Your task to perform on an android device: Add macbook pro 15 inch to the cart on amazon.com Image 0: 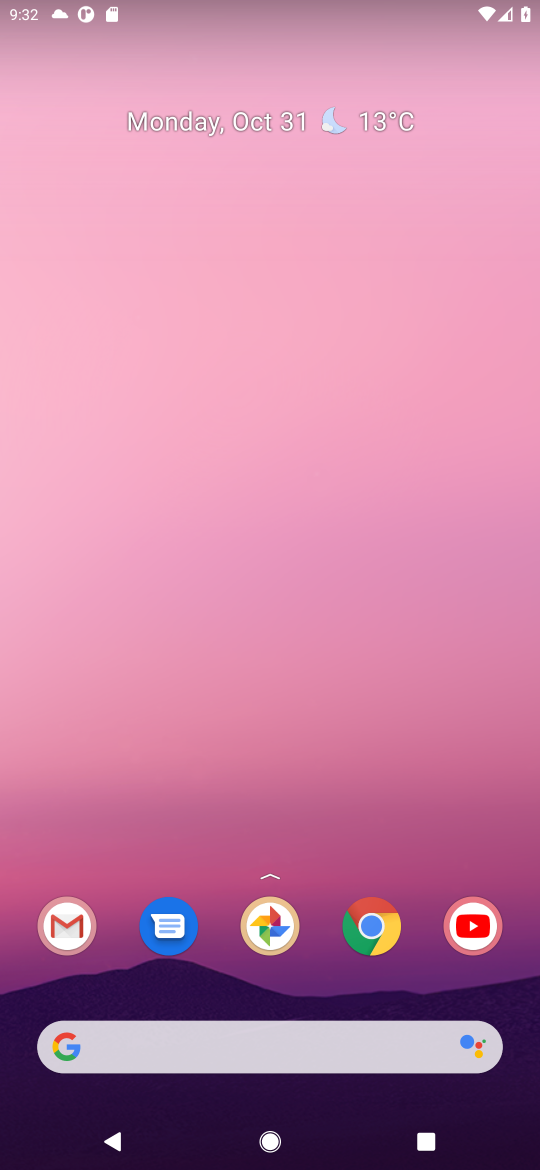
Step 0: click (376, 927)
Your task to perform on an android device: Add macbook pro 15 inch to the cart on amazon.com Image 1: 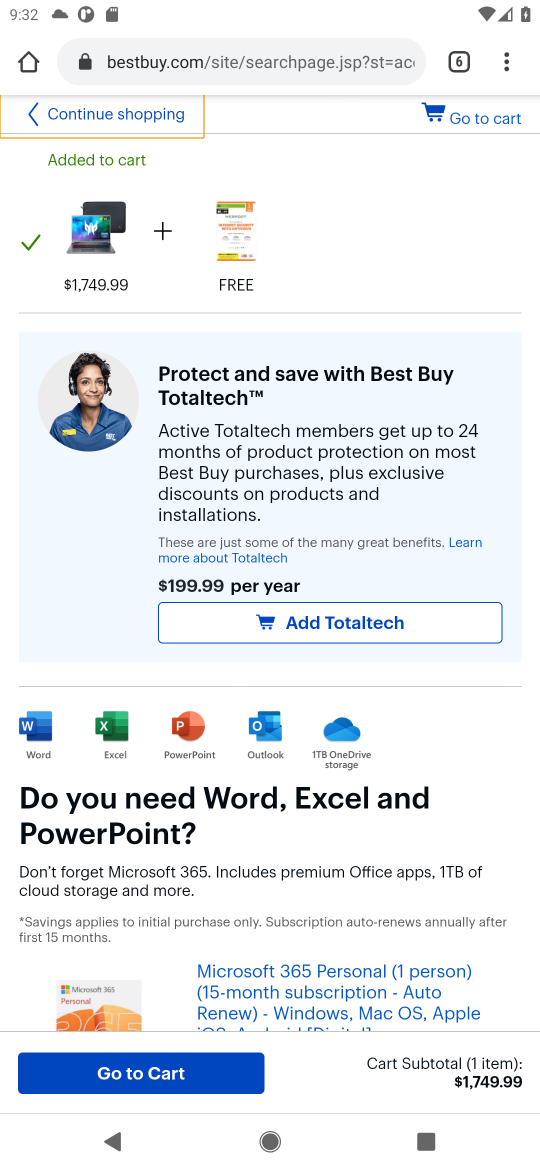
Step 1: click (460, 64)
Your task to perform on an android device: Add macbook pro 15 inch to the cart on amazon.com Image 2: 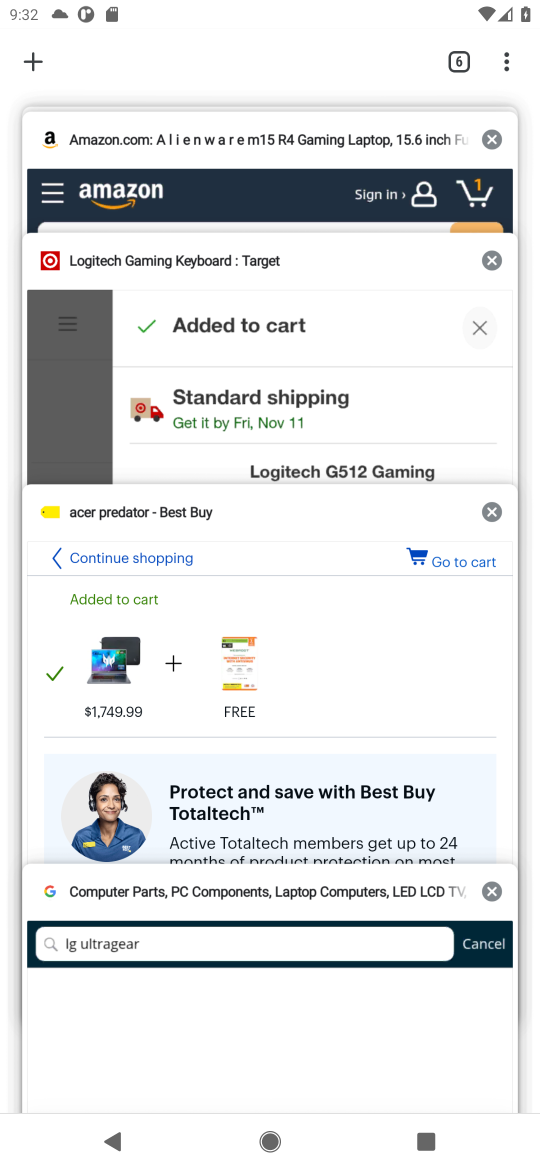
Step 2: click (261, 167)
Your task to perform on an android device: Add macbook pro 15 inch to the cart on amazon.com Image 3: 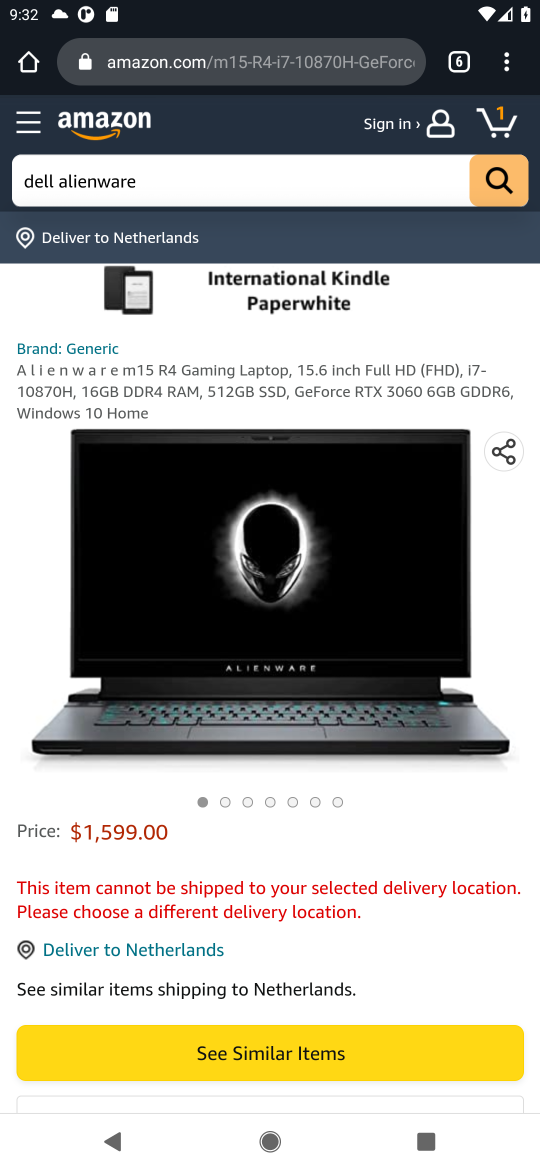
Step 3: click (332, 199)
Your task to perform on an android device: Add macbook pro 15 inch to the cart on amazon.com Image 4: 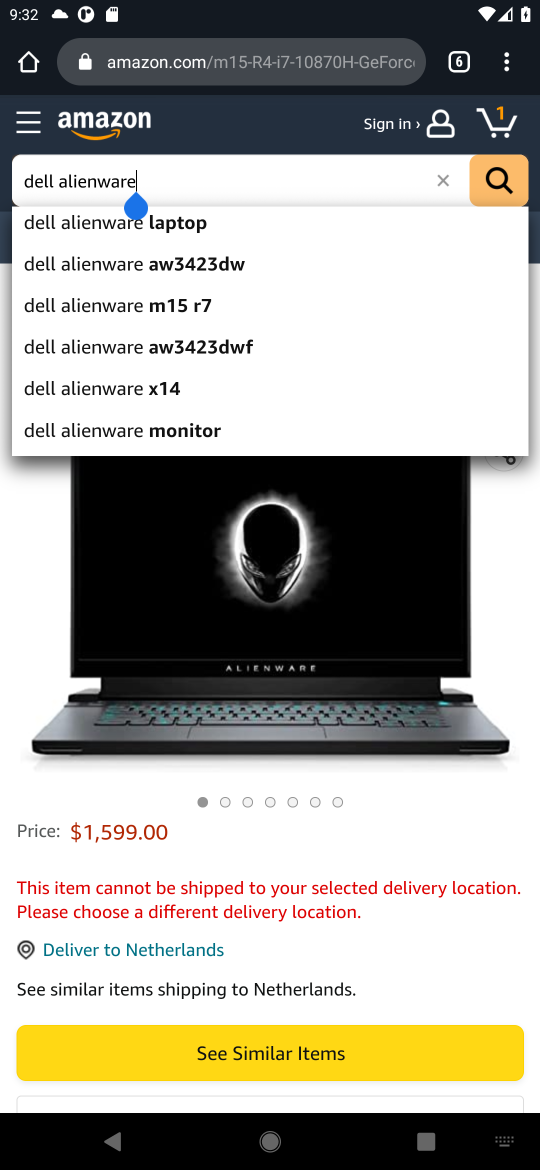
Step 4: click (438, 180)
Your task to perform on an android device: Add macbook pro 15 inch to the cart on amazon.com Image 5: 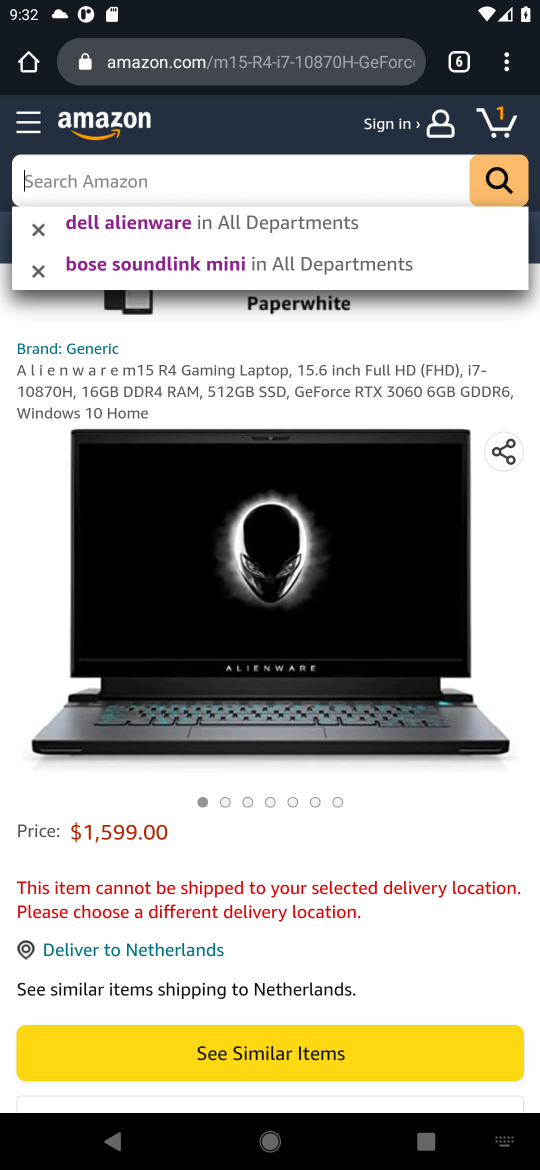
Step 5: type "macbook pro 15 inch"
Your task to perform on an android device: Add macbook pro 15 inch to the cart on amazon.com Image 6: 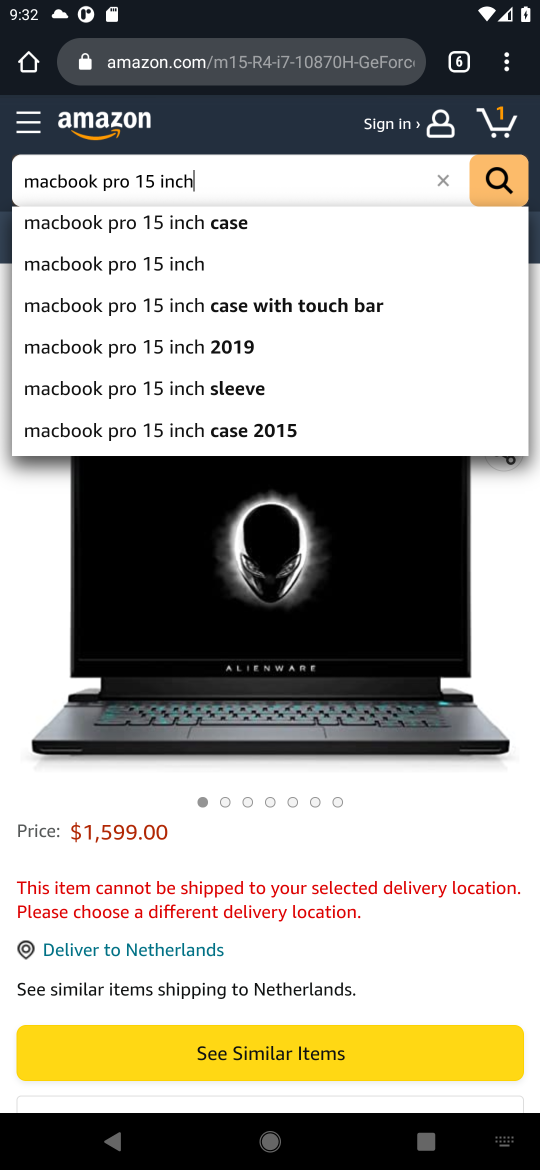
Step 6: click (234, 218)
Your task to perform on an android device: Add macbook pro 15 inch to the cart on amazon.com Image 7: 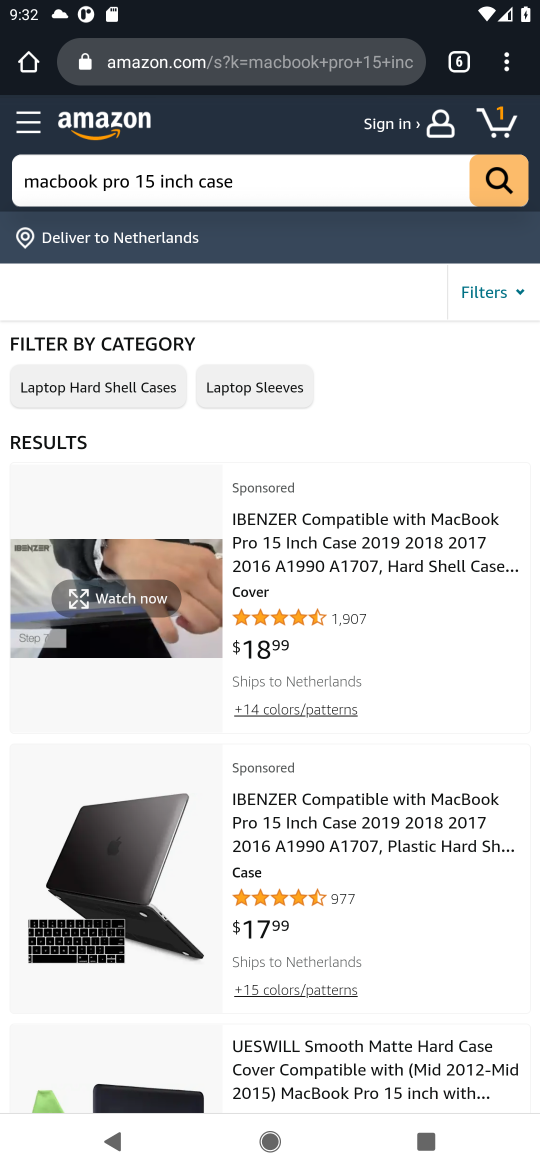
Step 7: drag from (374, 823) to (398, 479)
Your task to perform on an android device: Add macbook pro 15 inch to the cart on amazon.com Image 8: 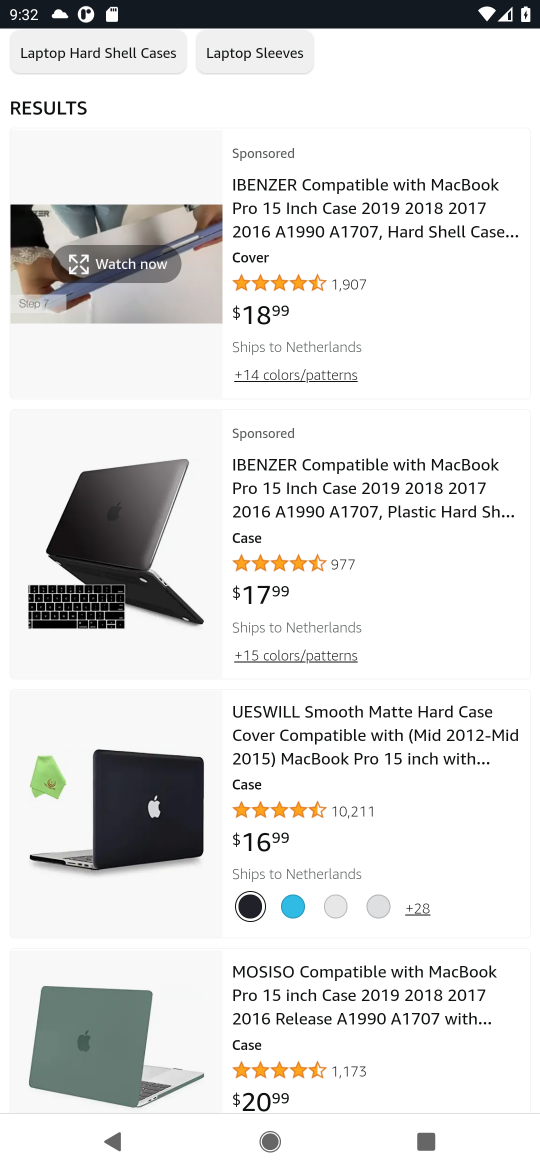
Step 8: drag from (390, 342) to (403, 1160)
Your task to perform on an android device: Add macbook pro 15 inch to the cart on amazon.com Image 9: 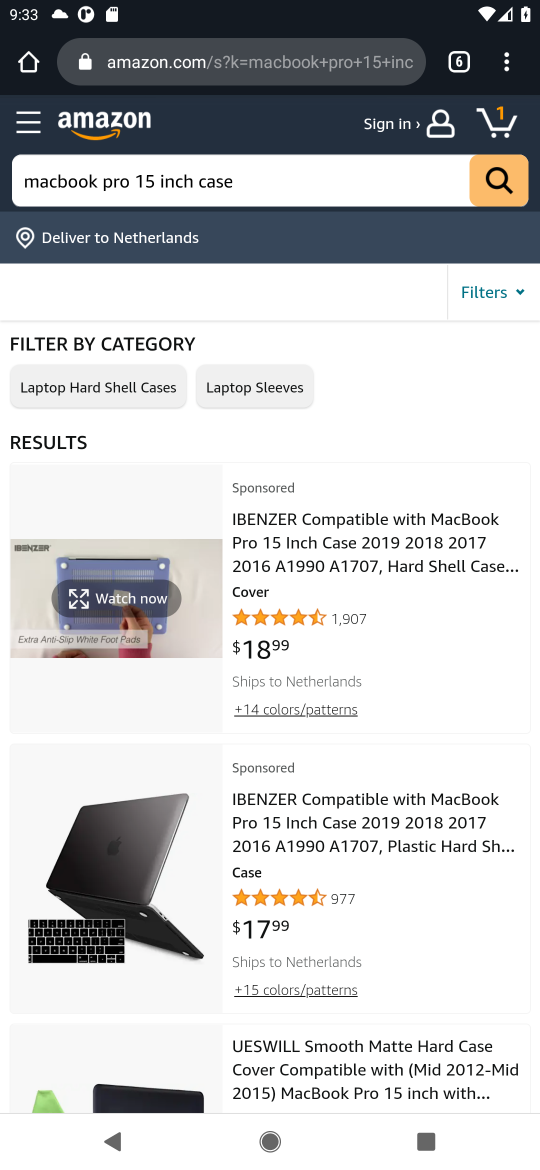
Step 9: click (374, 532)
Your task to perform on an android device: Add macbook pro 15 inch to the cart on amazon.com Image 10: 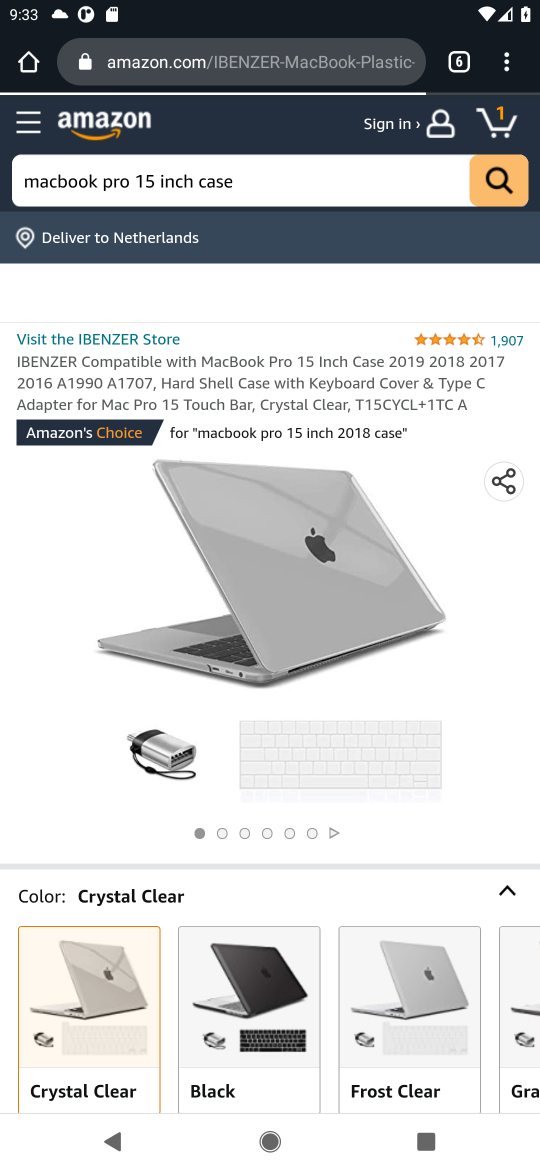
Step 10: drag from (353, 884) to (423, 355)
Your task to perform on an android device: Add macbook pro 15 inch to the cart on amazon.com Image 11: 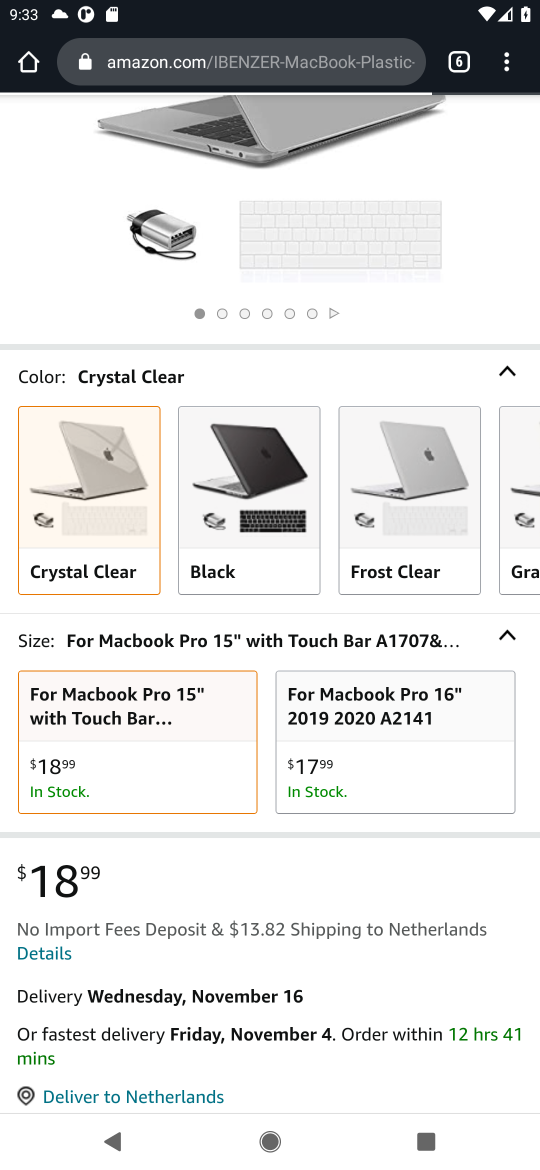
Step 11: drag from (336, 911) to (423, 467)
Your task to perform on an android device: Add macbook pro 15 inch to the cart on amazon.com Image 12: 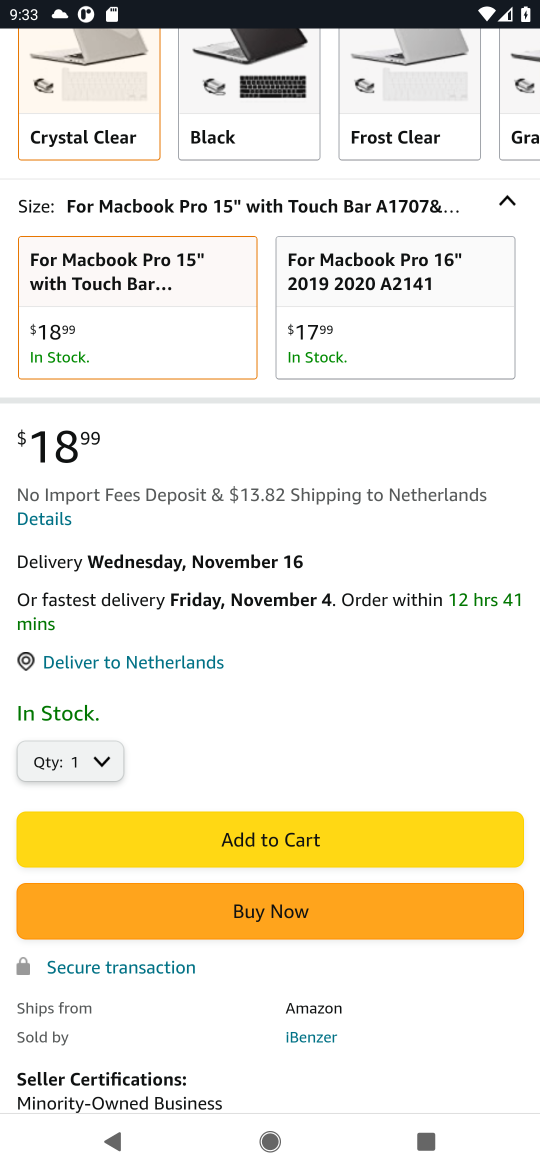
Step 12: click (319, 831)
Your task to perform on an android device: Add macbook pro 15 inch to the cart on amazon.com Image 13: 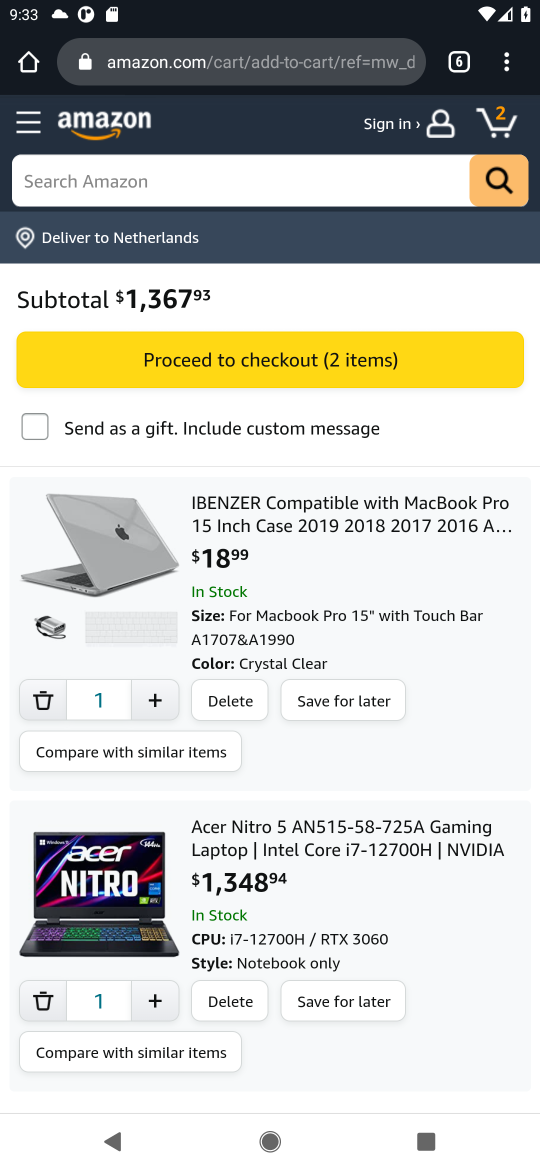
Step 13: task complete